Your task to perform on an android device: Check the news Image 0: 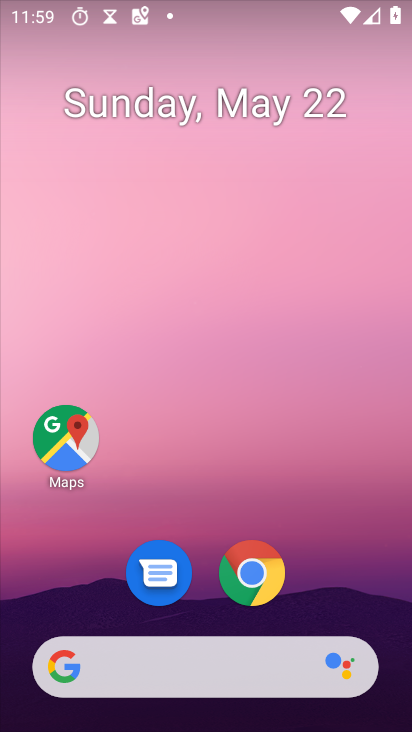
Step 0: press home button
Your task to perform on an android device: Check the news Image 1: 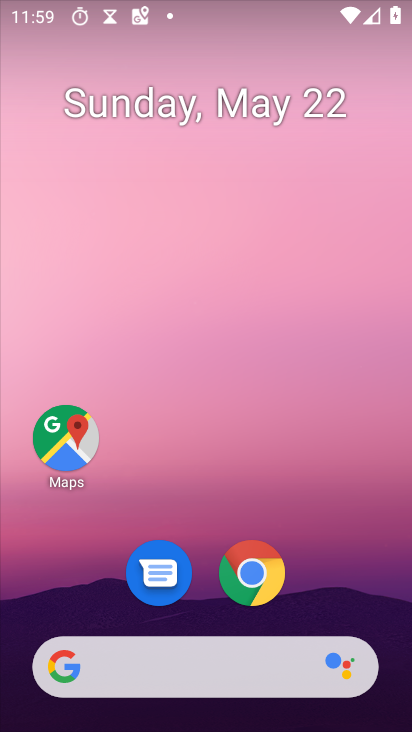
Step 1: click (71, 670)
Your task to perform on an android device: Check the news Image 2: 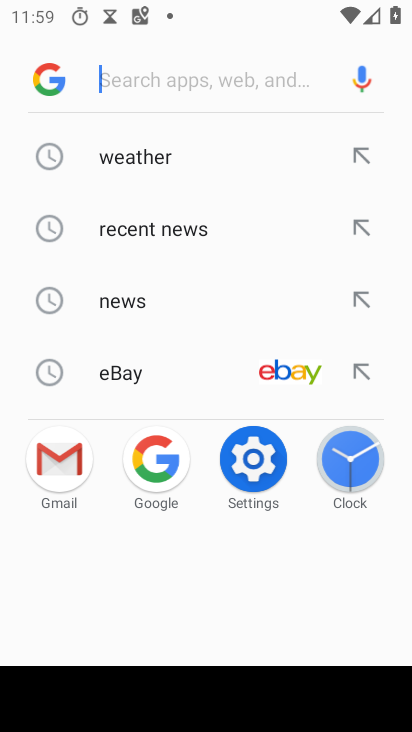
Step 2: click (128, 300)
Your task to perform on an android device: Check the news Image 3: 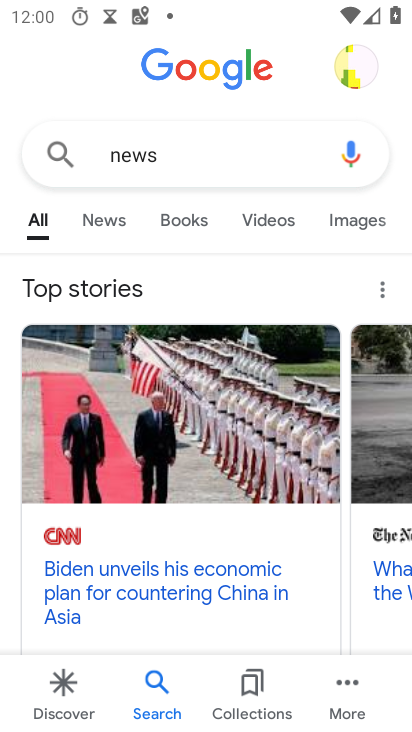
Step 3: click (115, 212)
Your task to perform on an android device: Check the news Image 4: 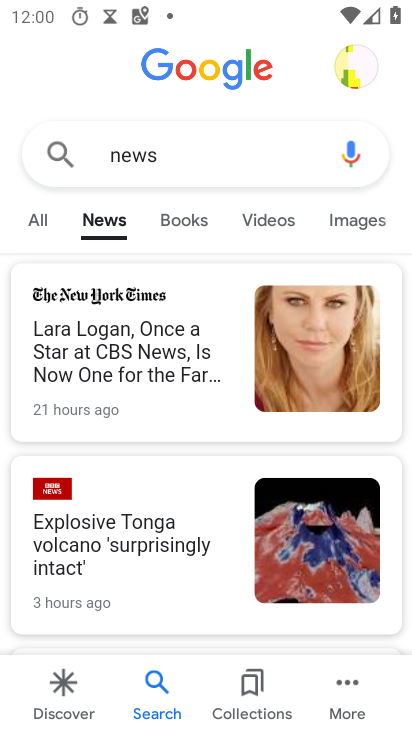
Step 4: task complete